Your task to perform on an android device: Open notification settings Image 0: 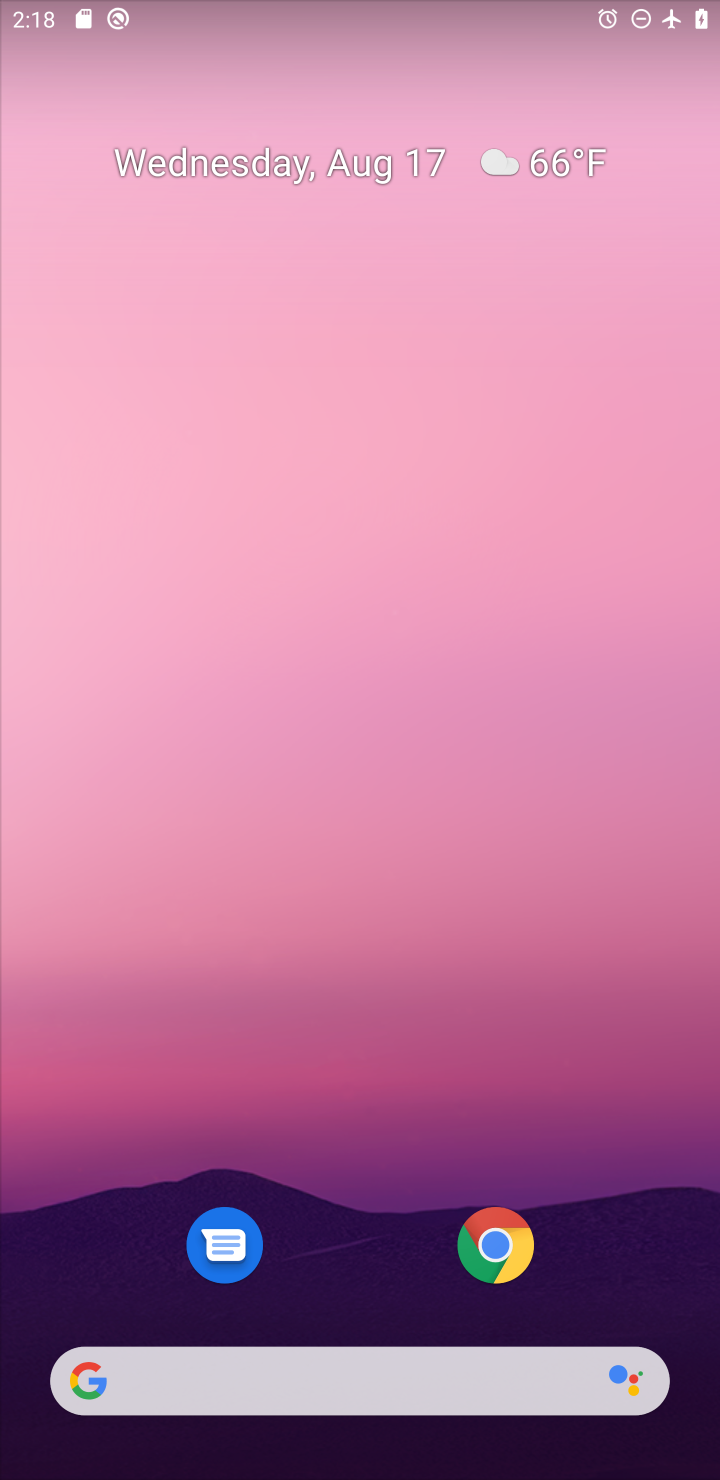
Step 0: drag from (329, 853) to (300, 30)
Your task to perform on an android device: Open notification settings Image 1: 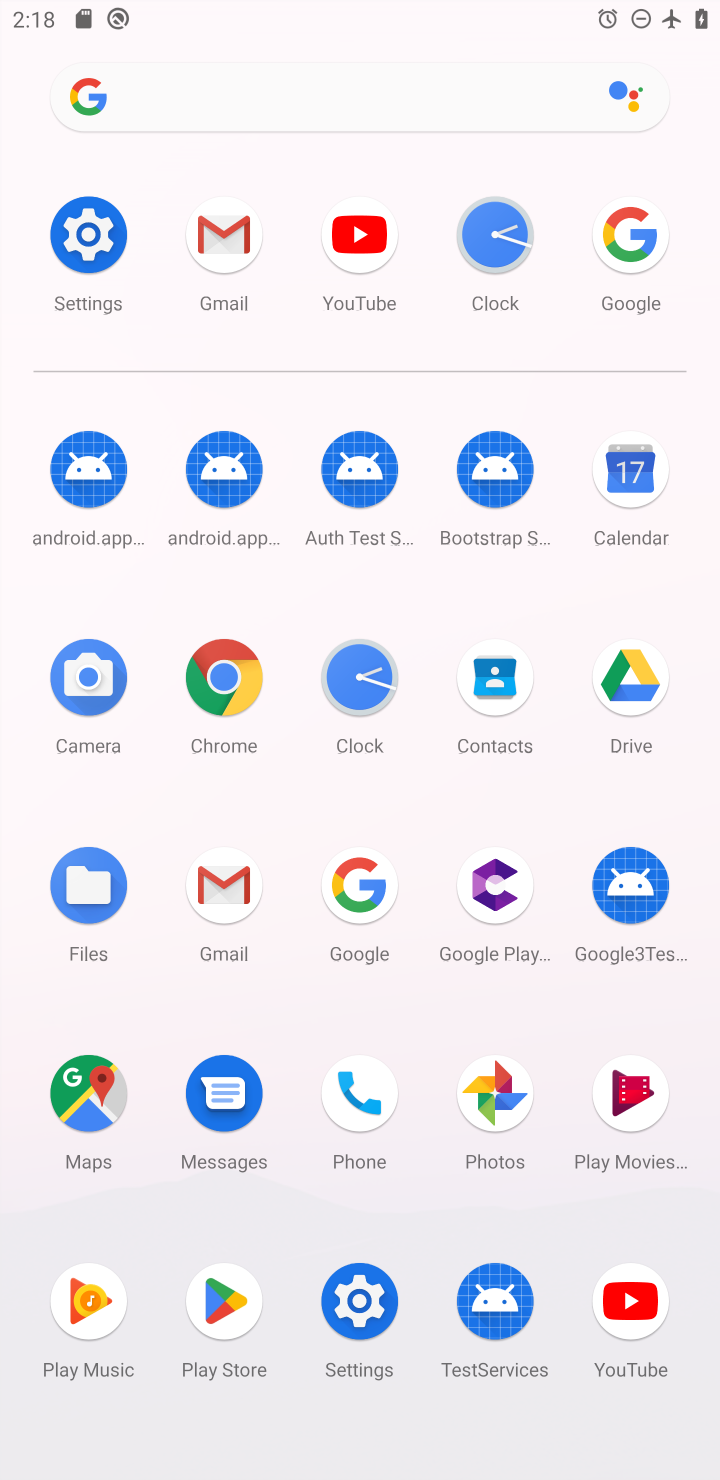
Step 1: click (352, 1290)
Your task to perform on an android device: Open notification settings Image 2: 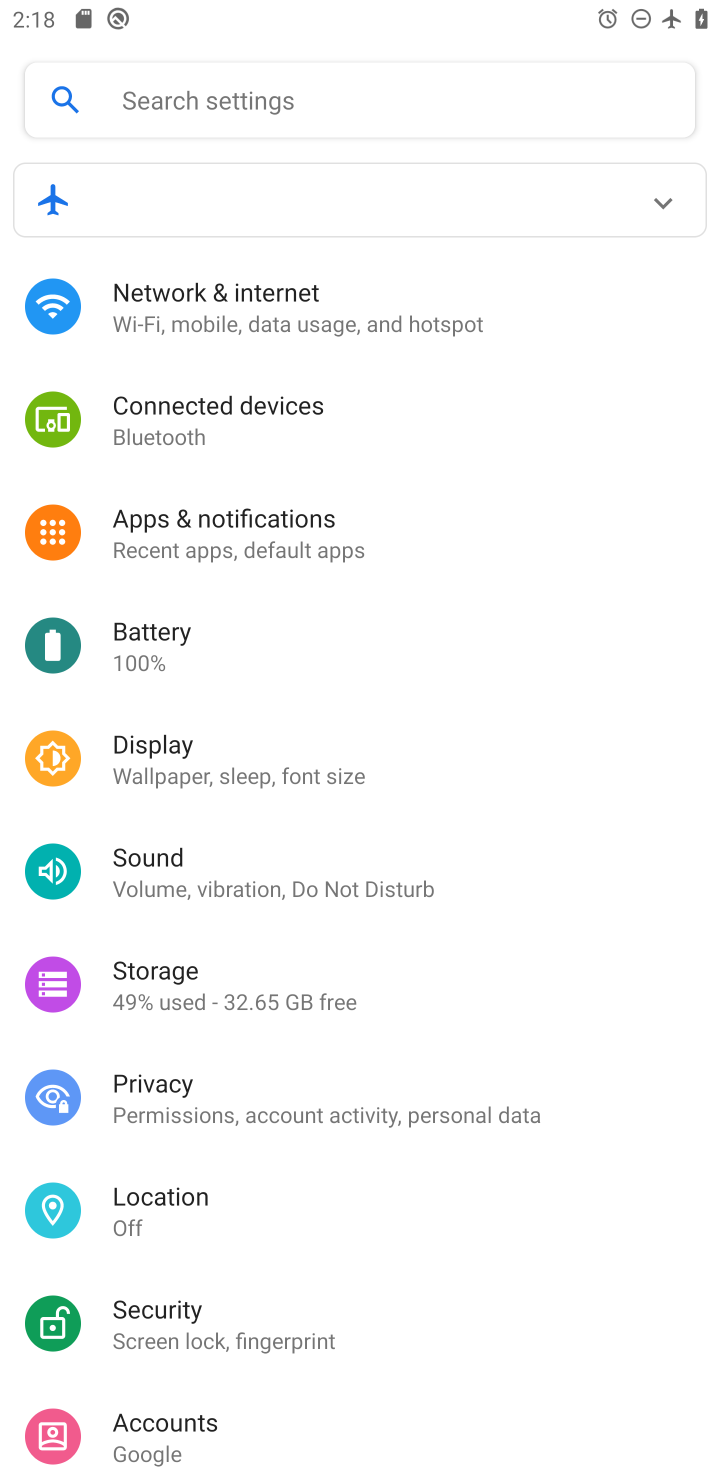
Step 2: click (211, 527)
Your task to perform on an android device: Open notification settings Image 3: 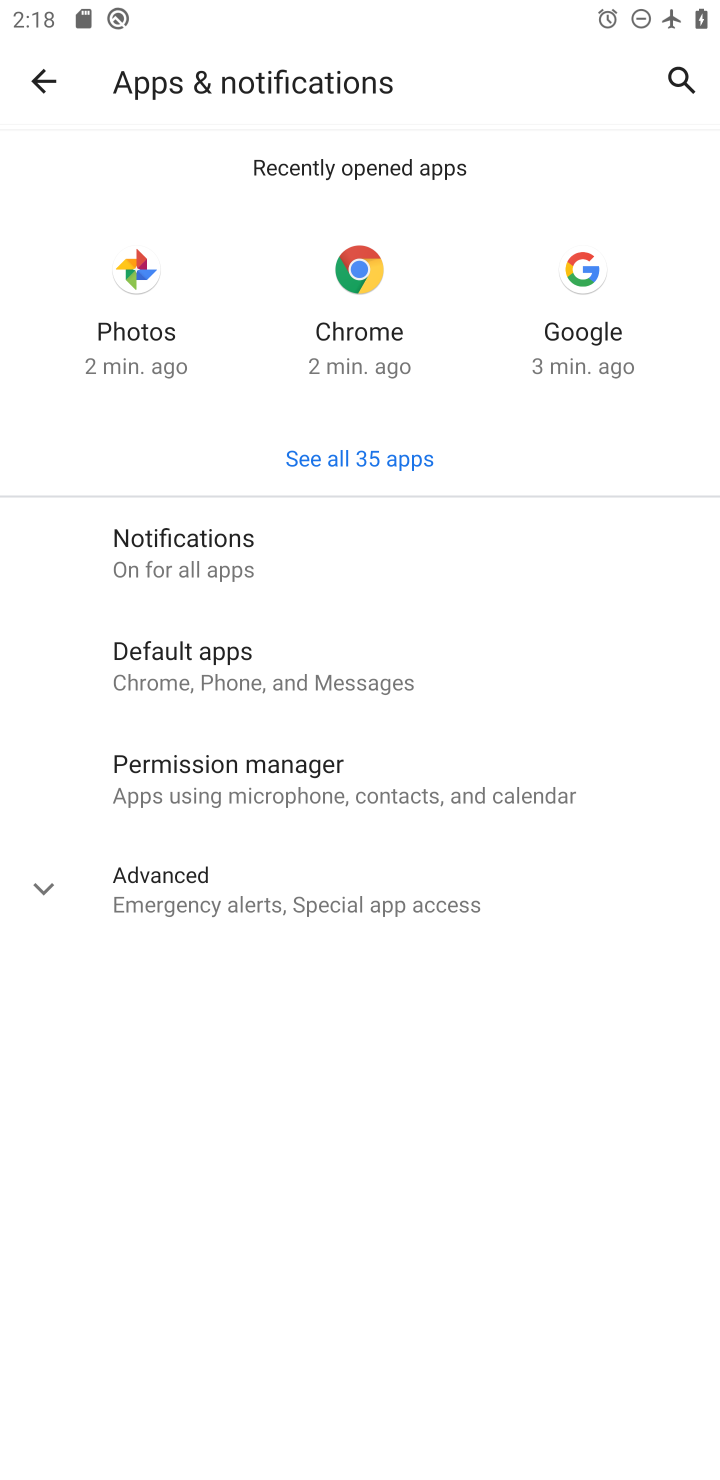
Step 3: click (161, 553)
Your task to perform on an android device: Open notification settings Image 4: 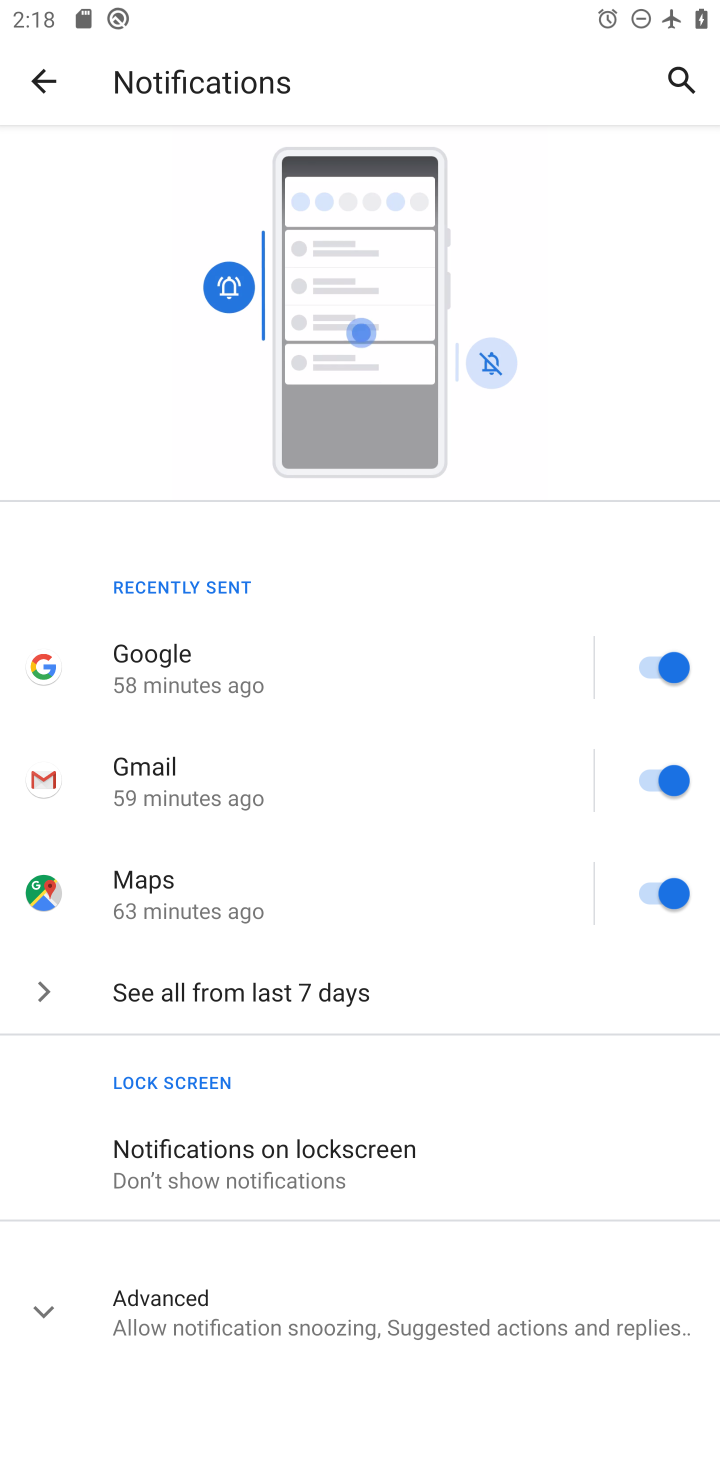
Step 4: task complete